Your task to perform on an android device: Search for the best value 4K TV on Best Buy Image 0: 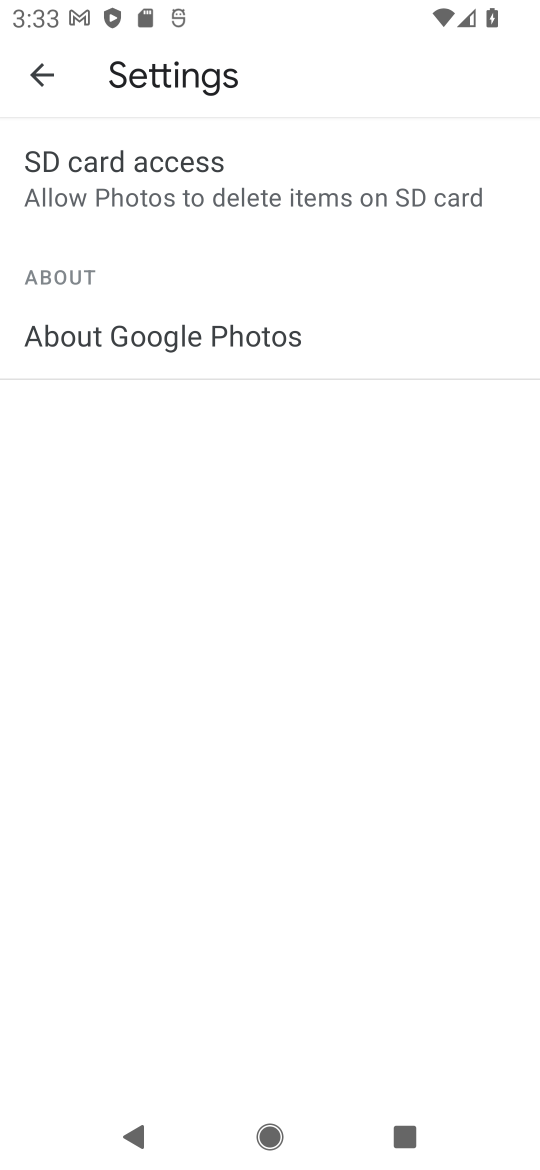
Step 0: press home button
Your task to perform on an android device: Search for the best value 4K TV on Best Buy Image 1: 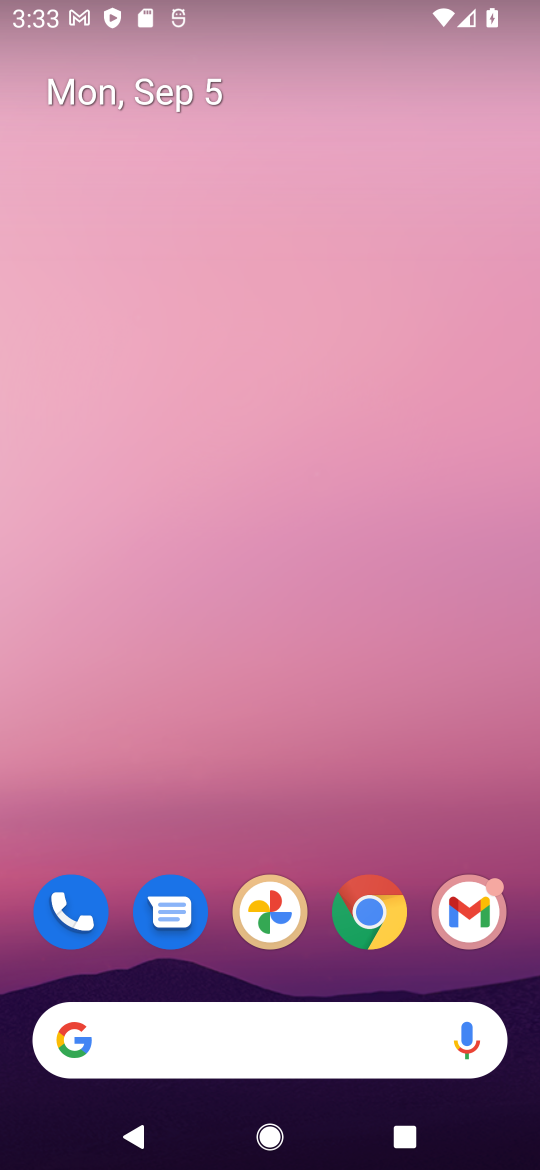
Step 1: click (364, 917)
Your task to perform on an android device: Search for the best value 4K TV on Best Buy Image 2: 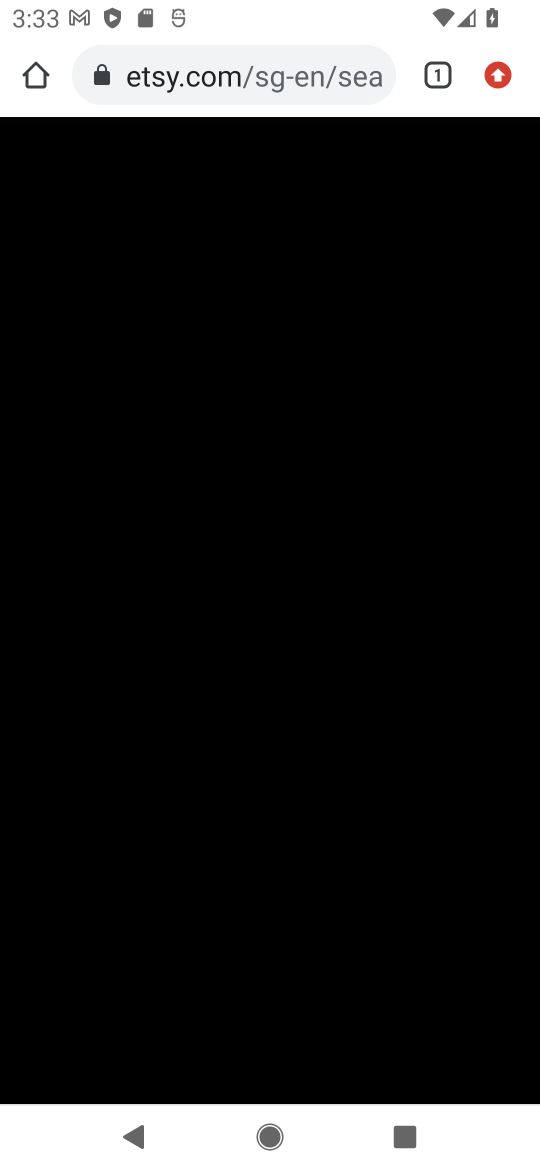
Step 2: click (213, 63)
Your task to perform on an android device: Search for the best value 4K TV on Best Buy Image 3: 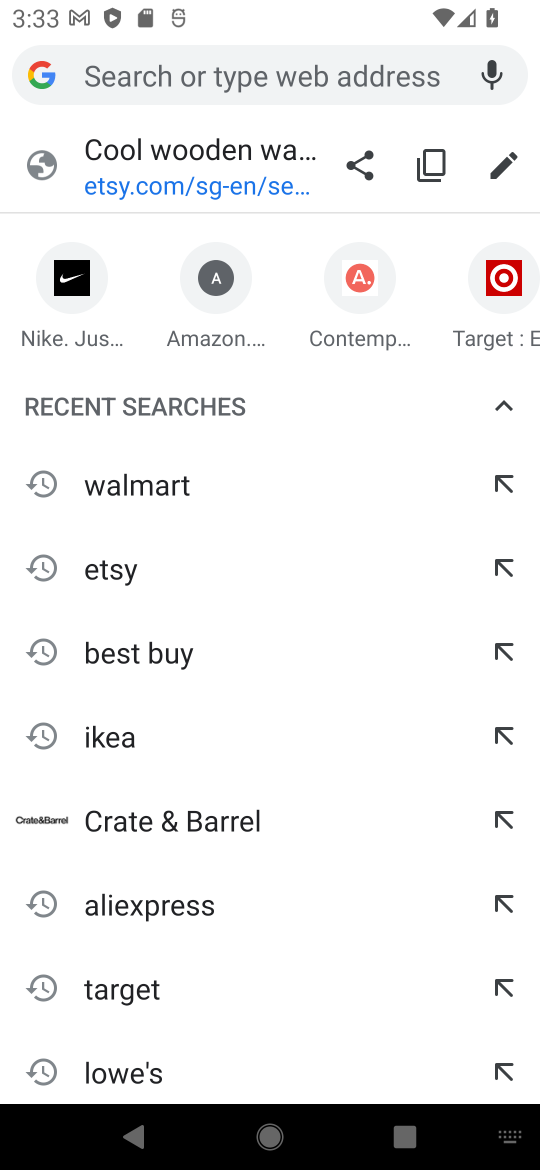
Step 3: press enter
Your task to perform on an android device: Search for the best value 4K TV on Best Buy Image 4: 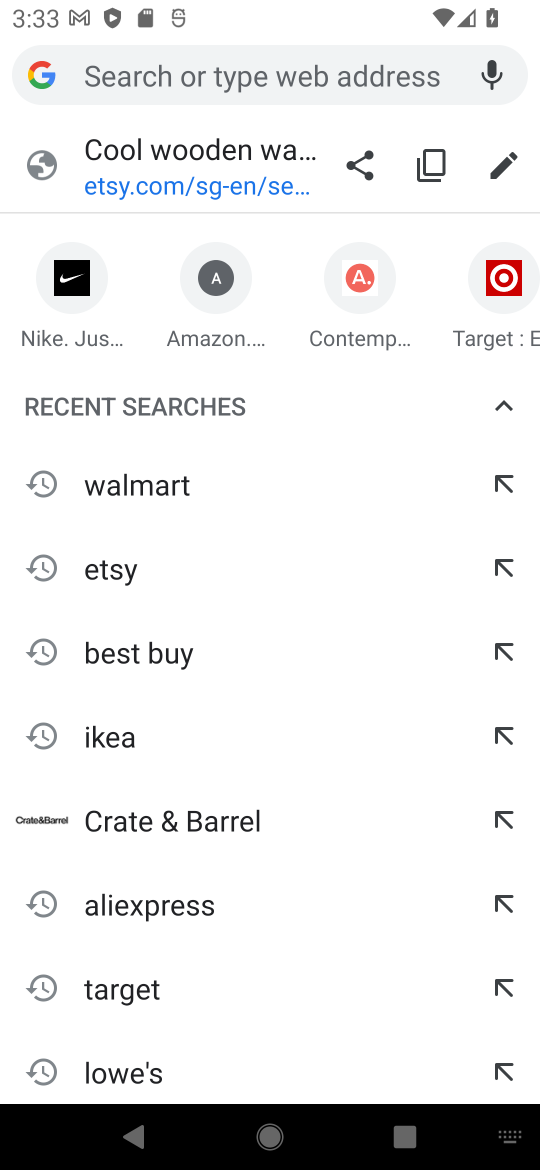
Step 4: type "best buy"
Your task to perform on an android device: Search for the best value 4K TV on Best Buy Image 5: 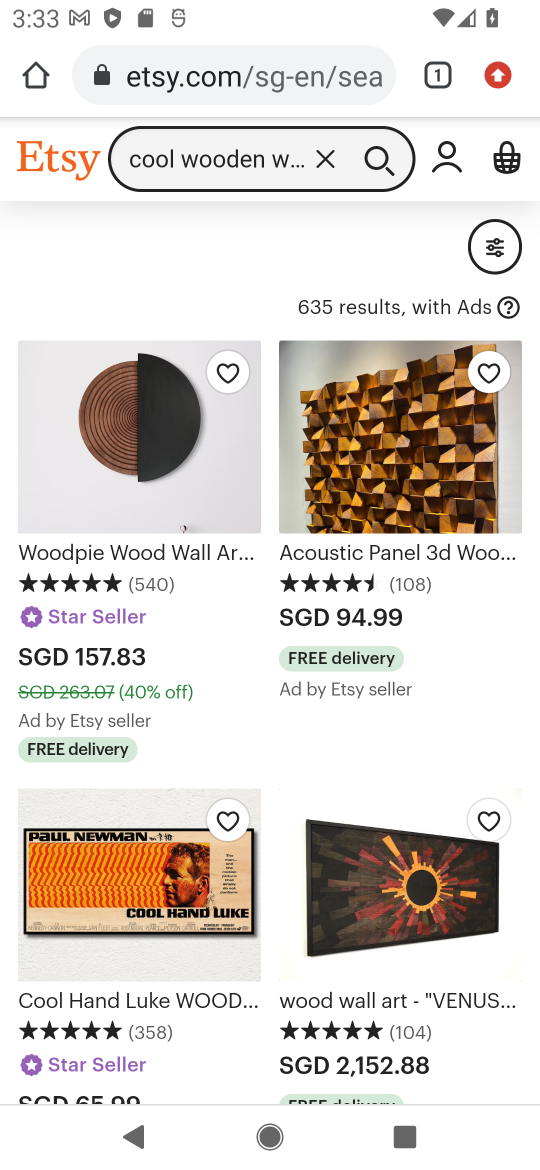
Step 5: click (294, 78)
Your task to perform on an android device: Search for the best value 4K TV on Best Buy Image 6: 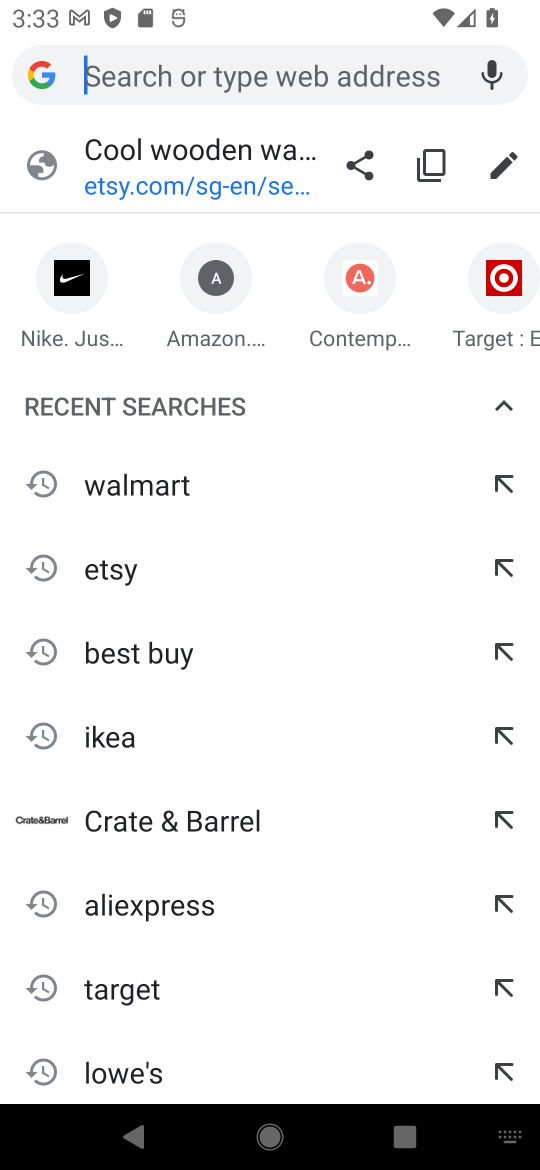
Step 6: type "best buy"
Your task to perform on an android device: Search for the best value 4K TV on Best Buy Image 7: 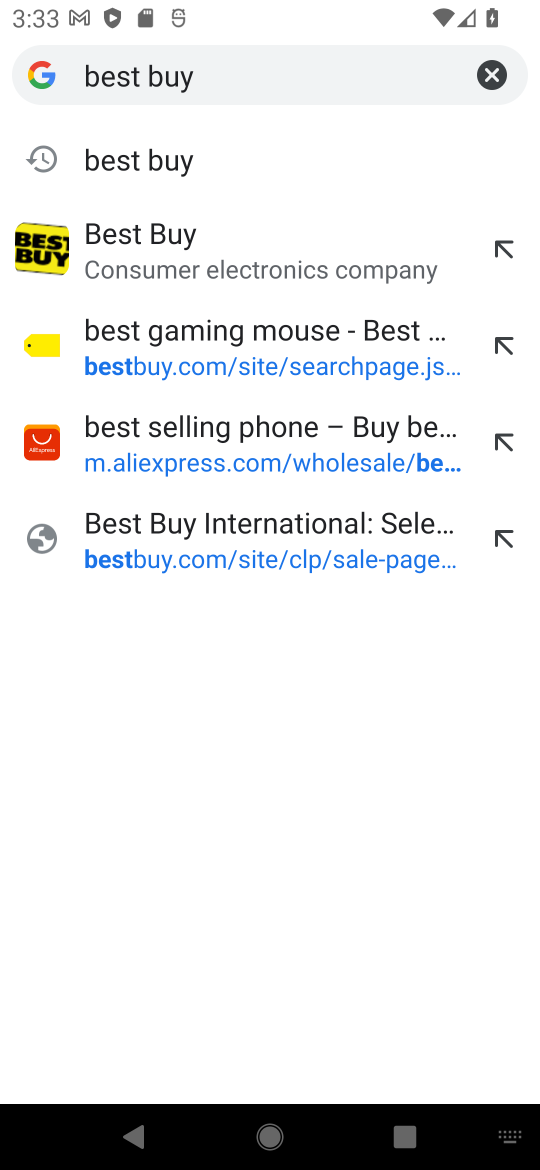
Step 7: press enter
Your task to perform on an android device: Search for the best value 4K TV on Best Buy Image 8: 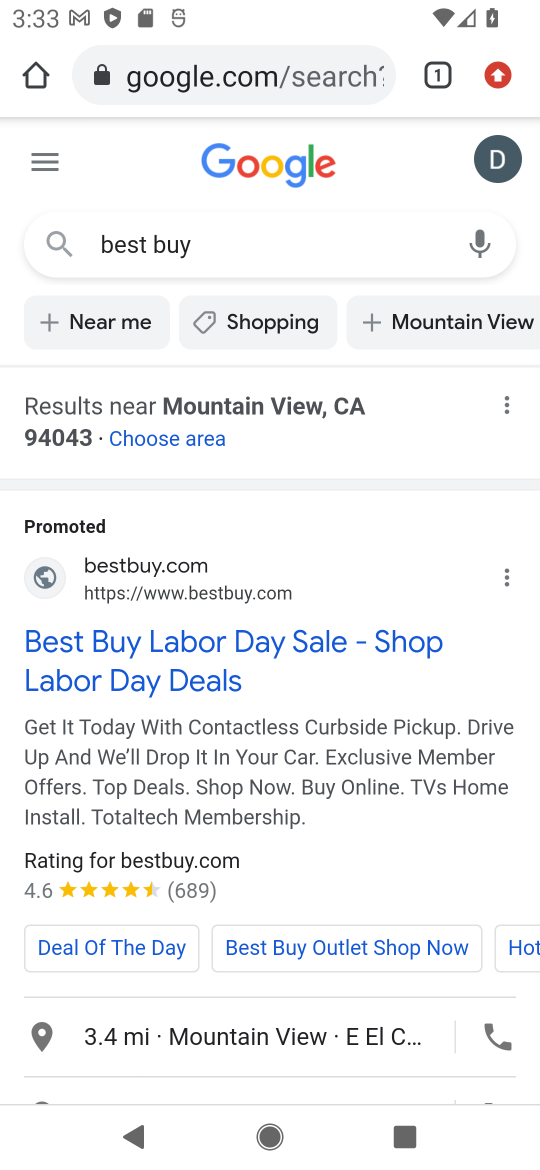
Step 8: click (221, 662)
Your task to perform on an android device: Search for the best value 4K TV on Best Buy Image 9: 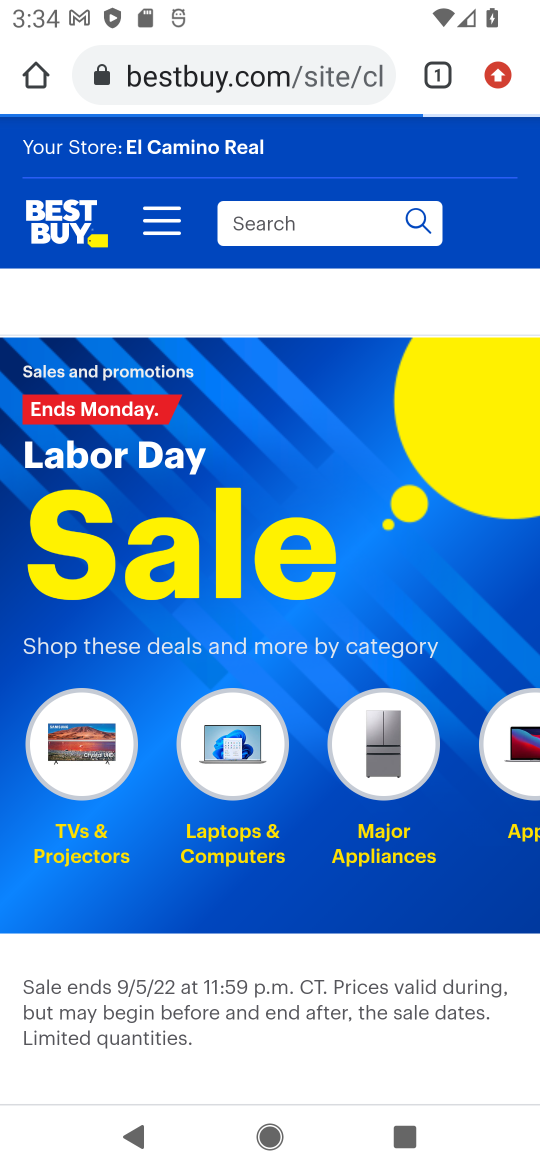
Step 9: click (278, 233)
Your task to perform on an android device: Search for the best value 4K TV on Best Buy Image 10: 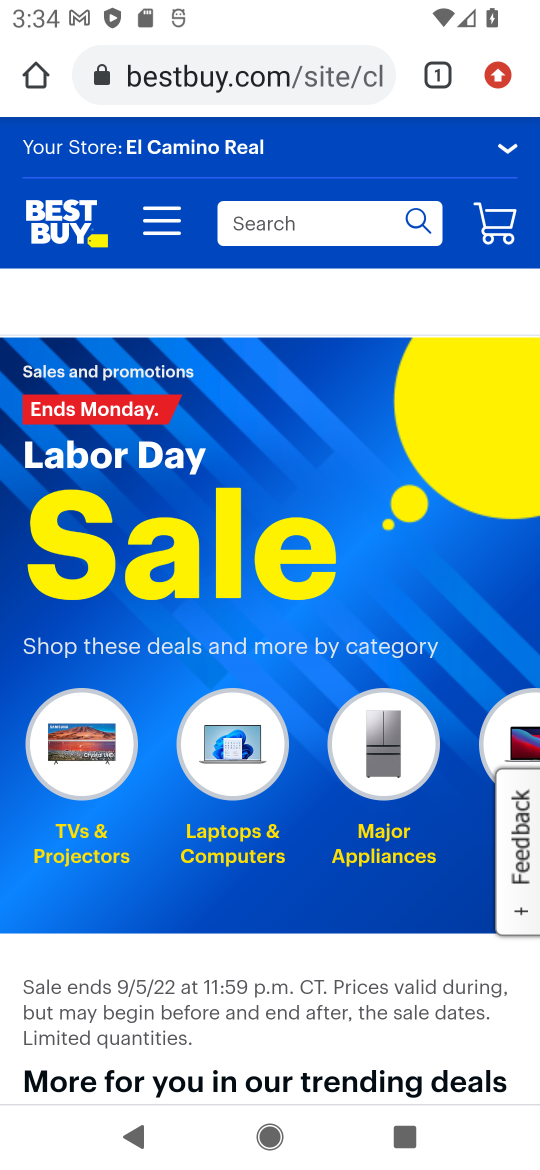
Step 10: click (302, 227)
Your task to perform on an android device: Search for the best value 4K TV on Best Buy Image 11: 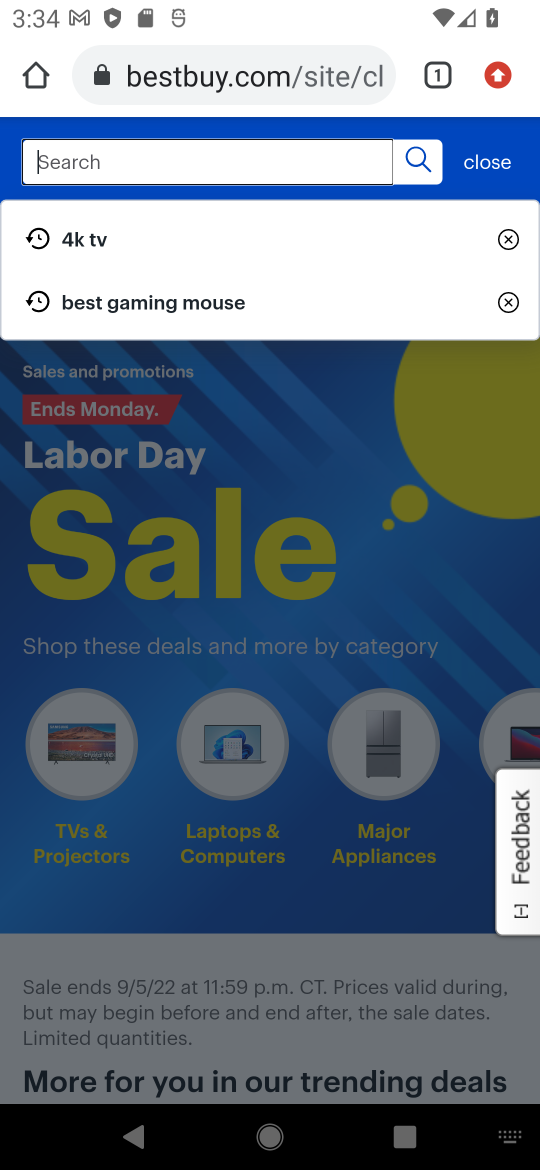
Step 11: click (244, 157)
Your task to perform on an android device: Search for the best value 4K TV on Best Buy Image 12: 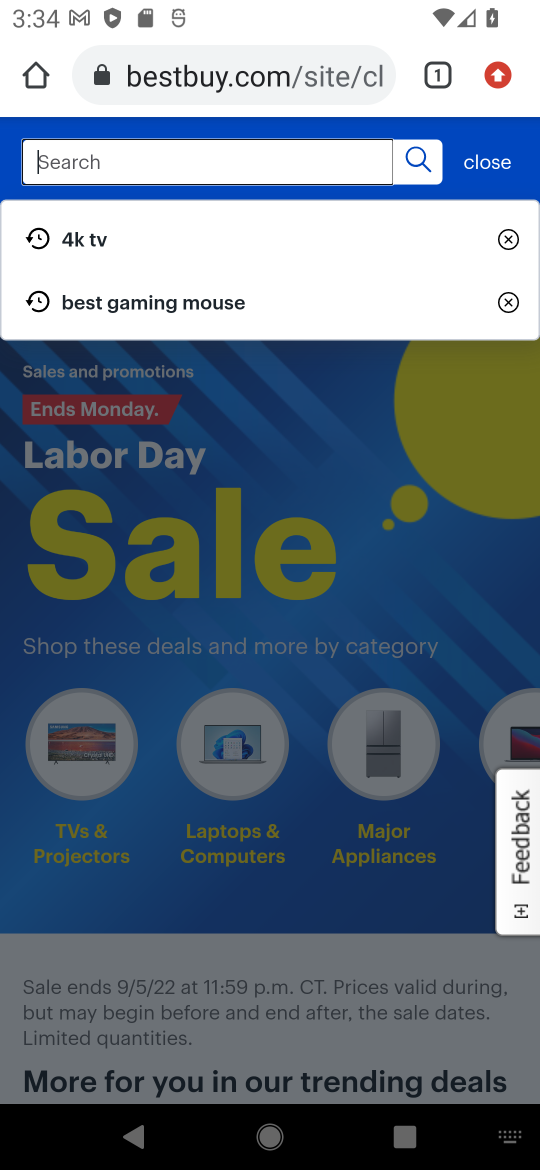
Step 12: type "4K TV"
Your task to perform on an android device: Search for the best value 4K TV on Best Buy Image 13: 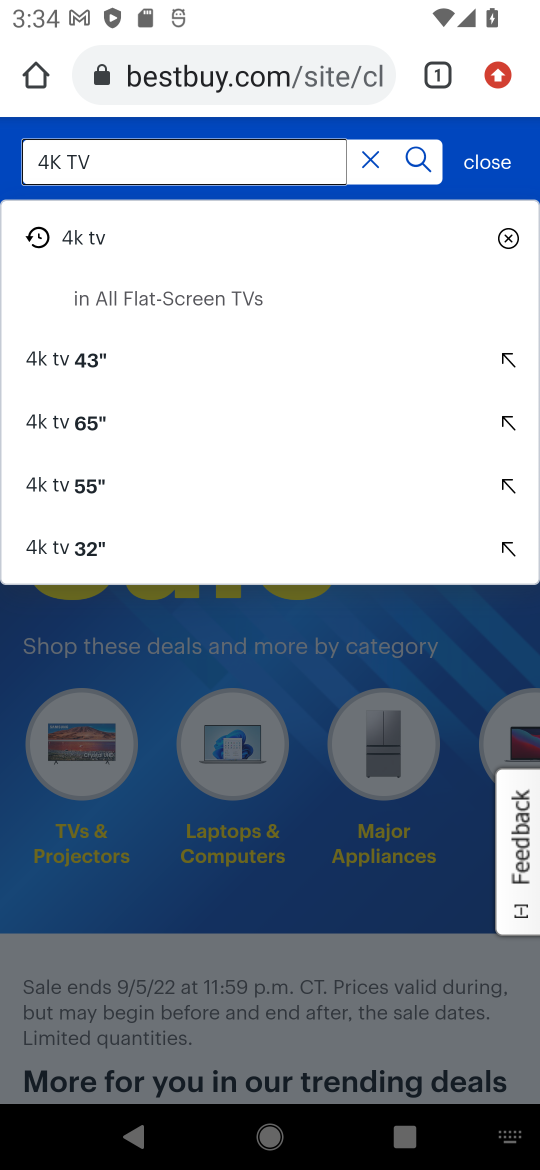
Step 13: press enter
Your task to perform on an android device: Search for the best value 4K TV on Best Buy Image 14: 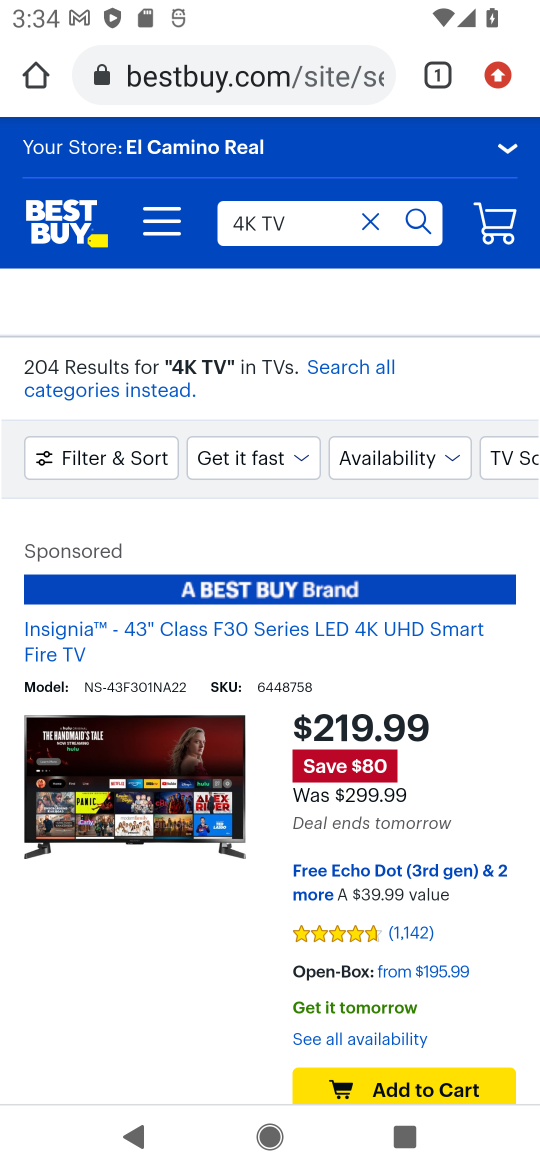
Step 14: click (122, 448)
Your task to perform on an android device: Search for the best value 4K TV on Best Buy Image 15: 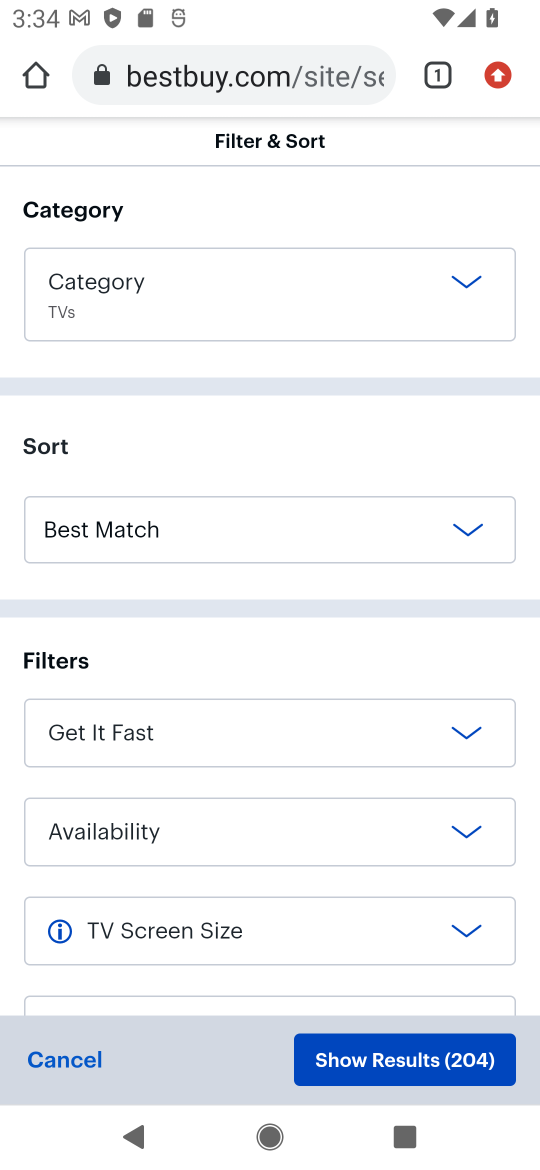
Step 15: click (211, 551)
Your task to perform on an android device: Search for the best value 4K TV on Best Buy Image 16: 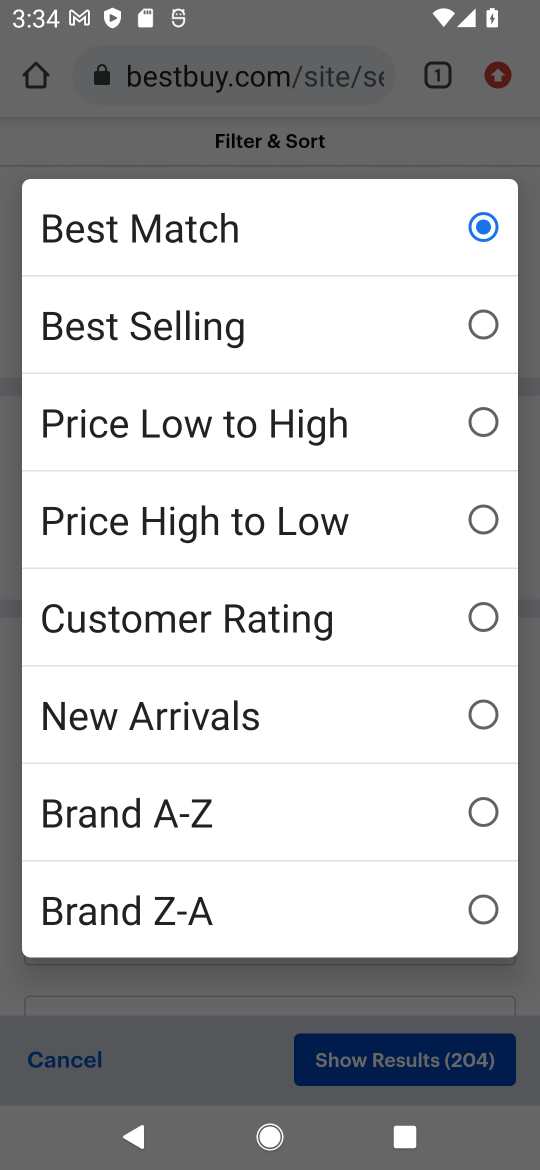
Step 16: click (423, 342)
Your task to perform on an android device: Search for the best value 4K TV on Best Buy Image 17: 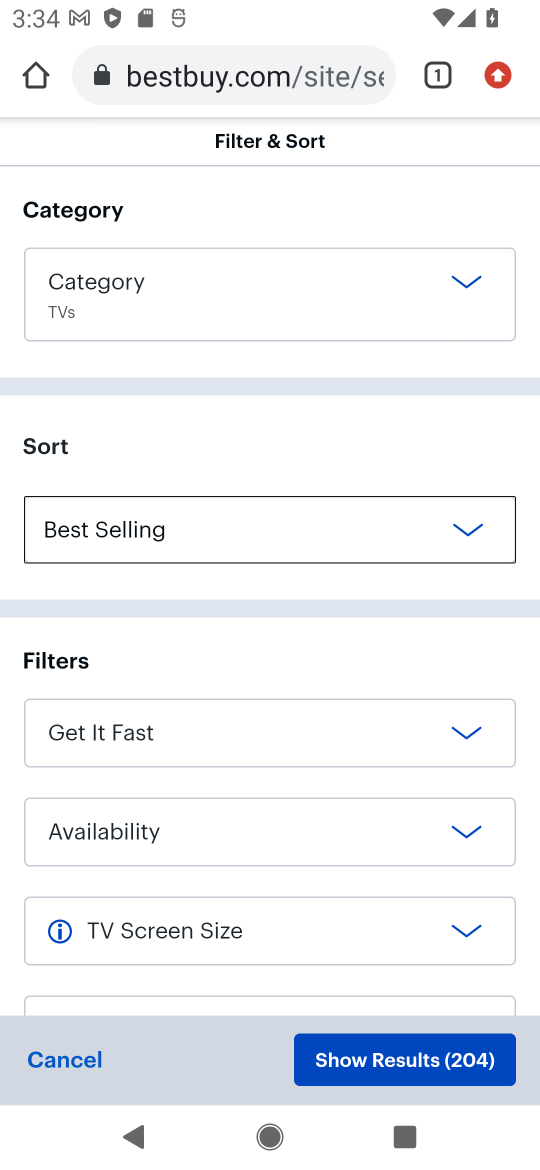
Step 17: drag from (392, 664) to (384, 185)
Your task to perform on an android device: Search for the best value 4K TV on Best Buy Image 18: 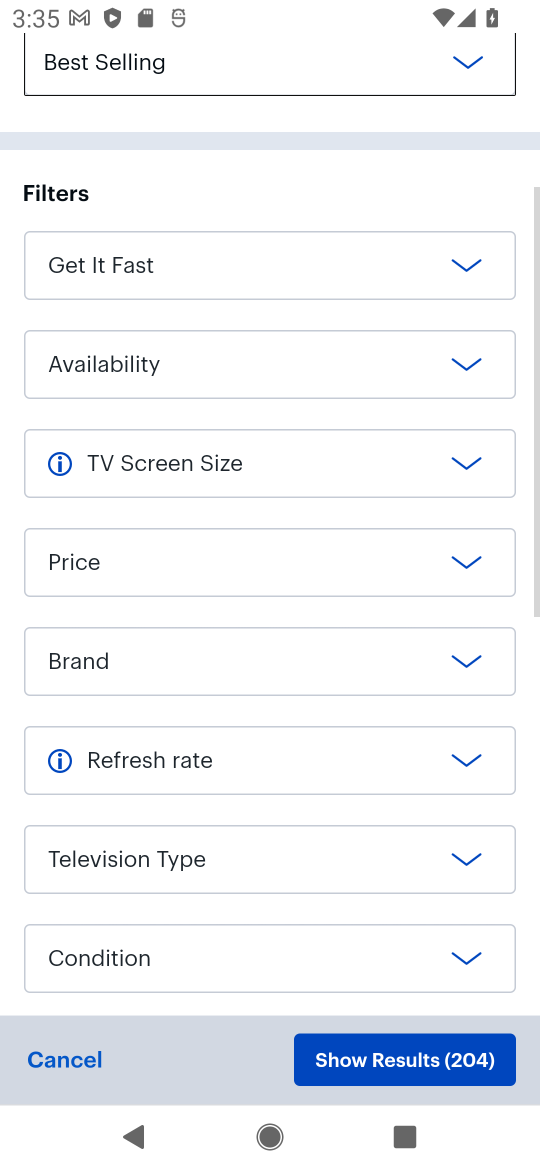
Step 18: drag from (309, 862) to (343, 376)
Your task to perform on an android device: Search for the best value 4K TV on Best Buy Image 19: 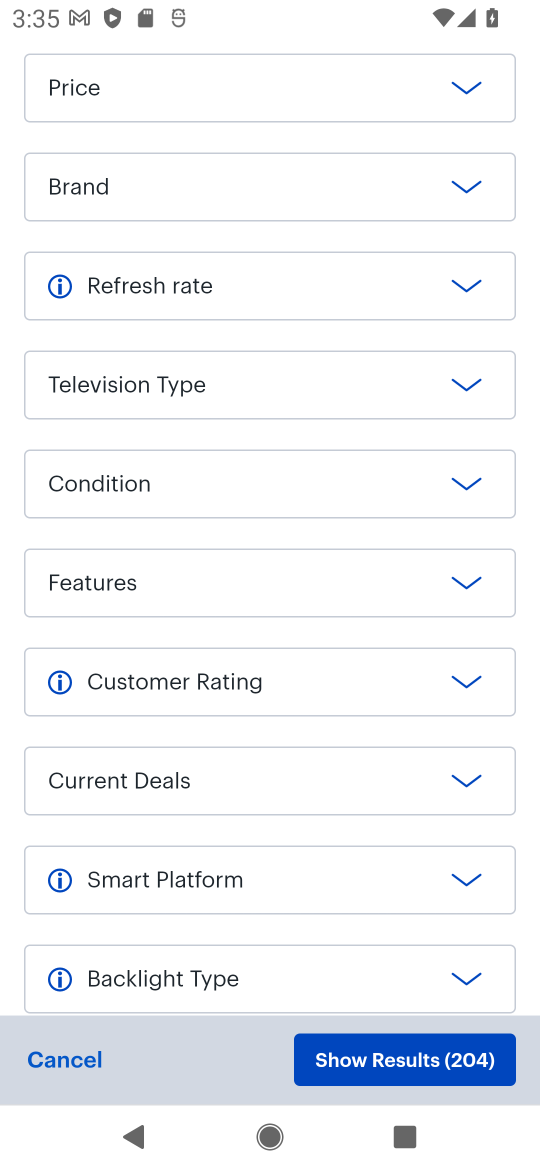
Step 19: click (354, 485)
Your task to perform on an android device: Search for the best value 4K TV on Best Buy Image 20: 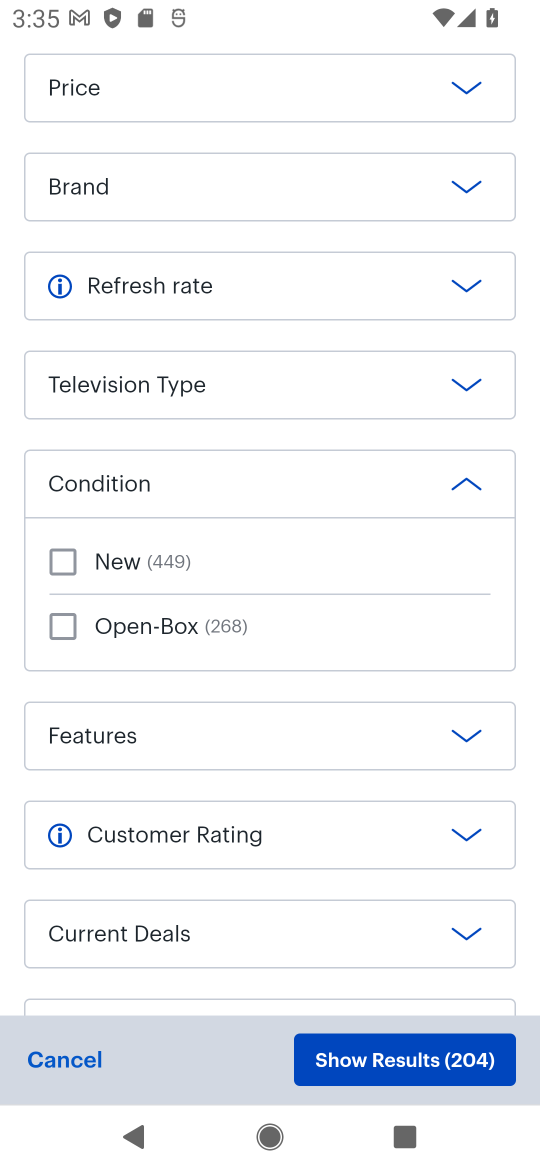
Step 20: click (354, 485)
Your task to perform on an android device: Search for the best value 4K TV on Best Buy Image 21: 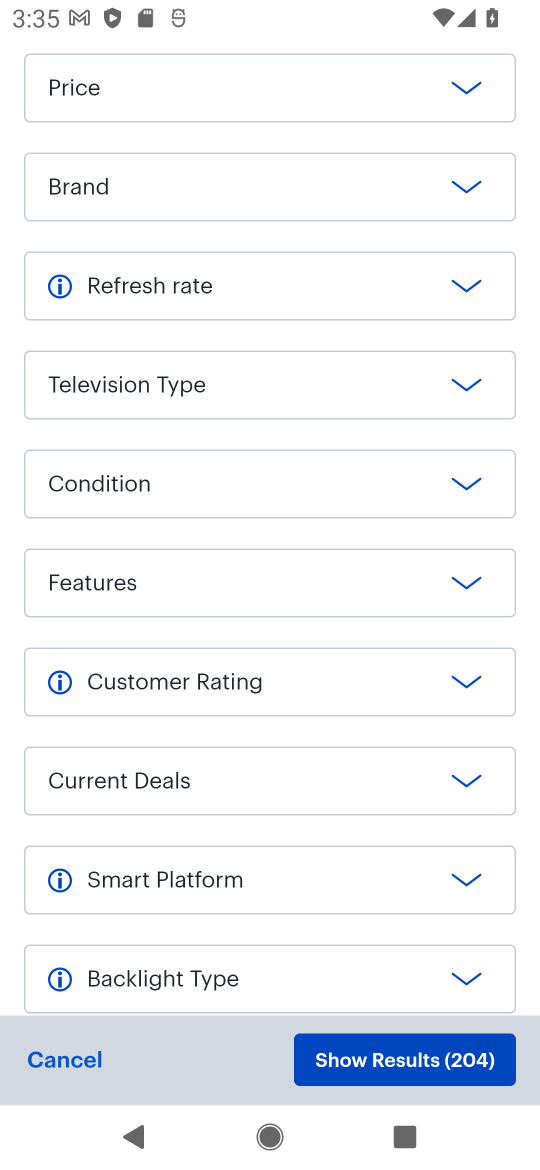
Step 21: click (352, 584)
Your task to perform on an android device: Search for the best value 4K TV on Best Buy Image 22: 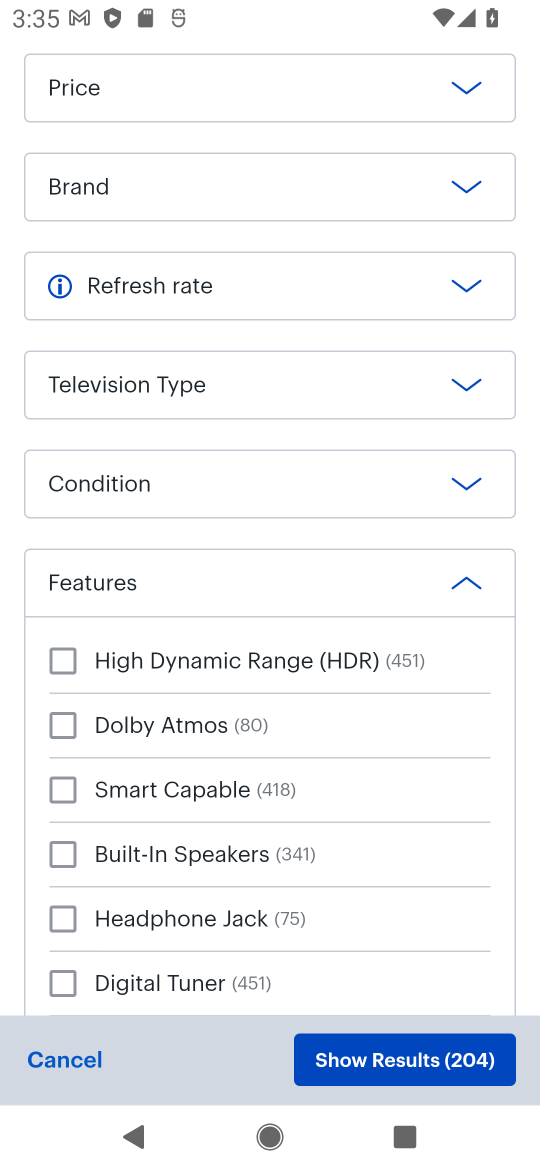
Step 22: click (352, 584)
Your task to perform on an android device: Search for the best value 4K TV on Best Buy Image 23: 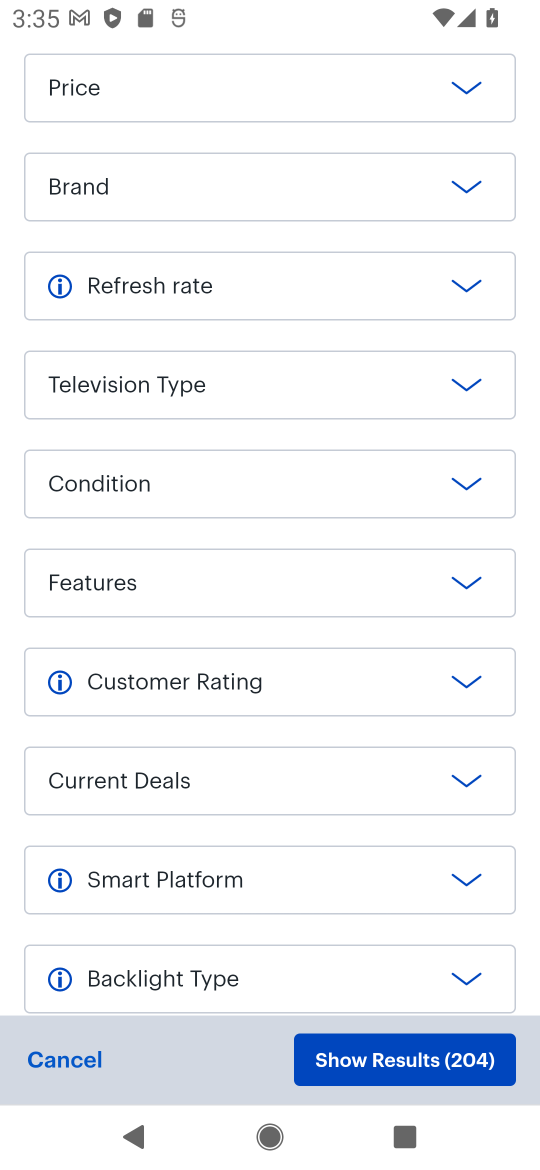
Step 23: click (388, 381)
Your task to perform on an android device: Search for the best value 4K TV on Best Buy Image 24: 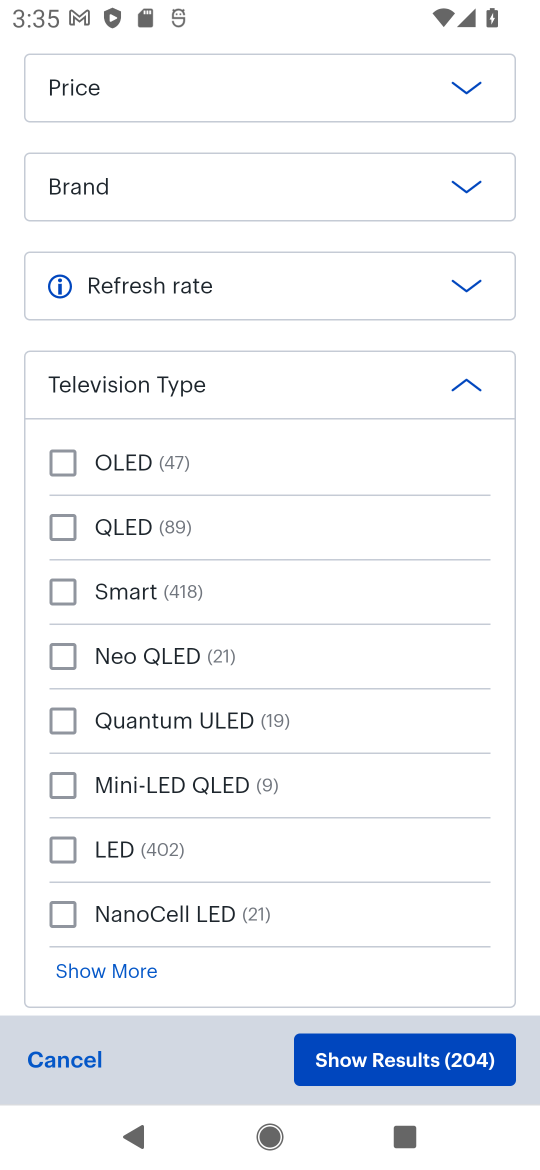
Step 24: click (388, 381)
Your task to perform on an android device: Search for the best value 4K TV on Best Buy Image 25: 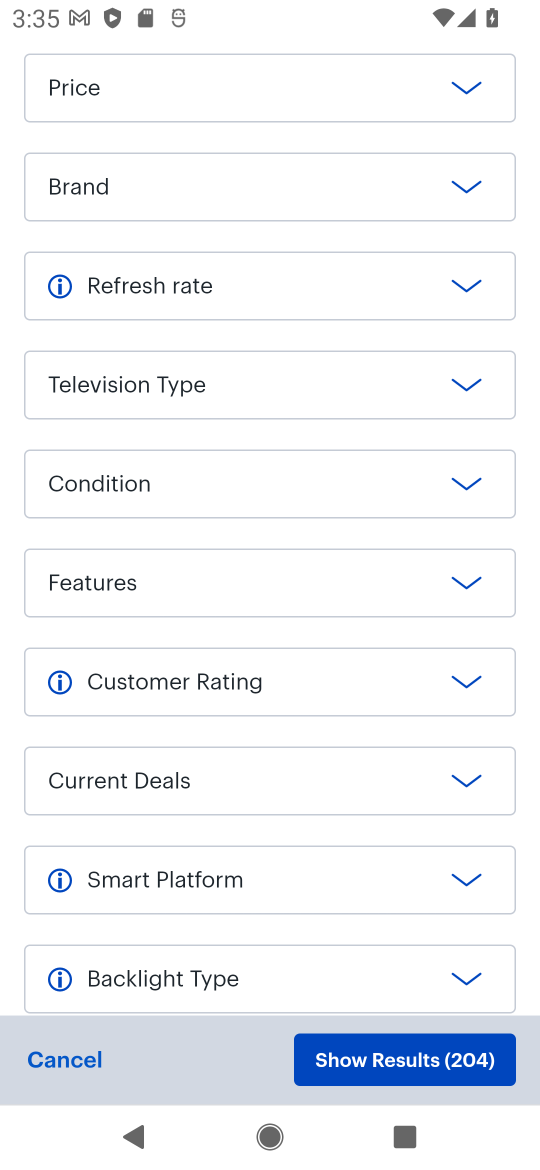
Step 25: drag from (328, 741) to (339, 303)
Your task to perform on an android device: Search for the best value 4K TV on Best Buy Image 26: 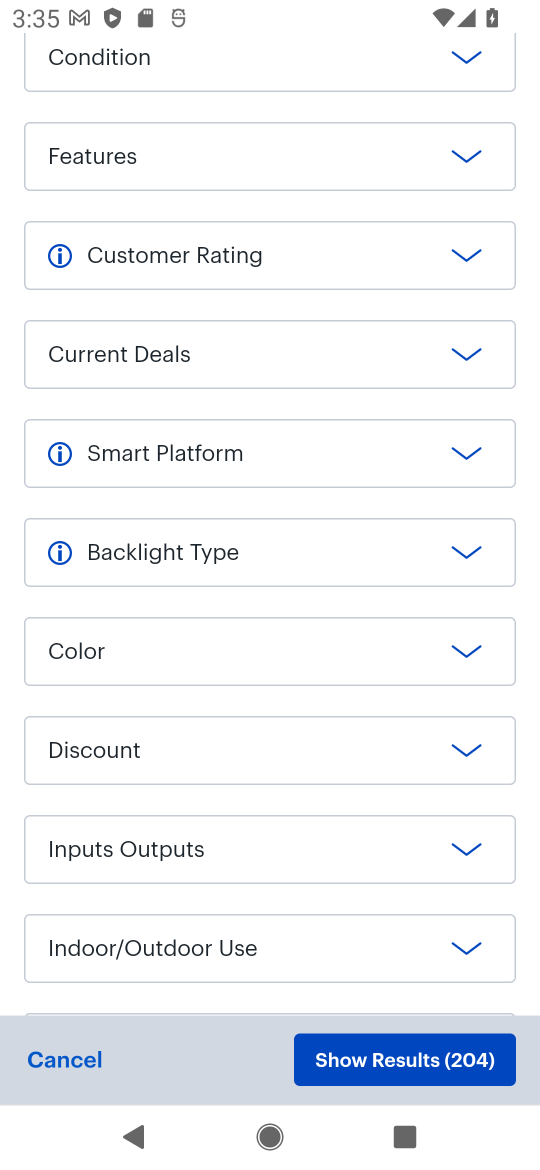
Step 26: drag from (345, 852) to (375, 504)
Your task to perform on an android device: Search for the best value 4K TV on Best Buy Image 27: 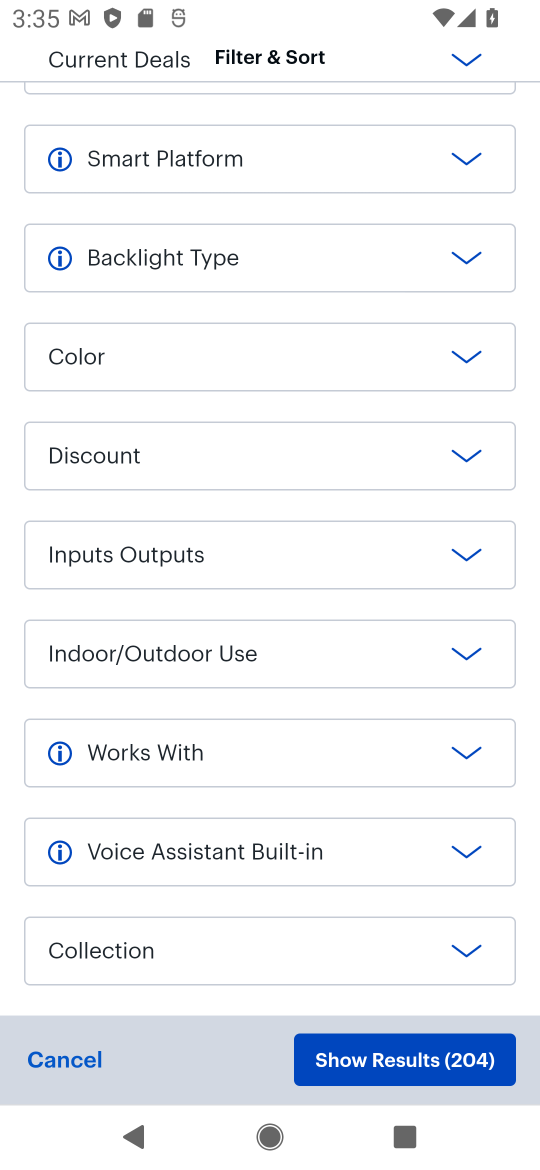
Step 27: click (449, 1069)
Your task to perform on an android device: Search for the best value 4K TV on Best Buy Image 28: 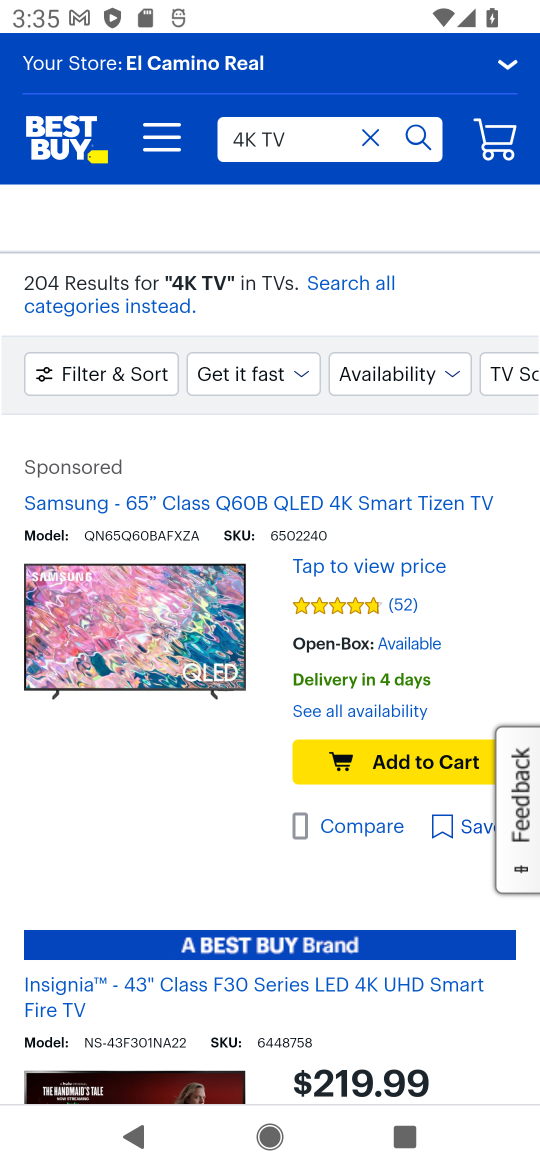
Step 28: click (304, 587)
Your task to perform on an android device: Search for the best value 4K TV on Best Buy Image 29: 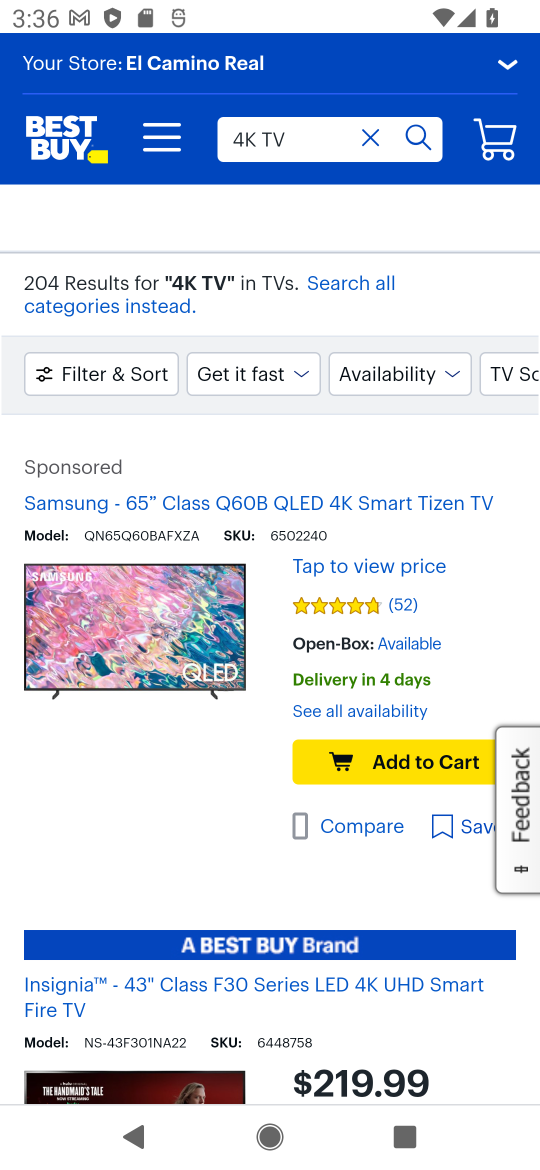
Step 29: task complete